Your task to perform on an android device: set default search engine in the chrome app Image 0: 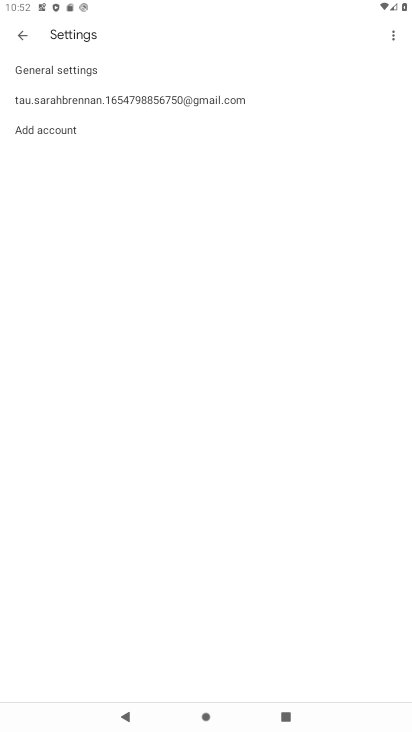
Step 0: press home button
Your task to perform on an android device: set default search engine in the chrome app Image 1: 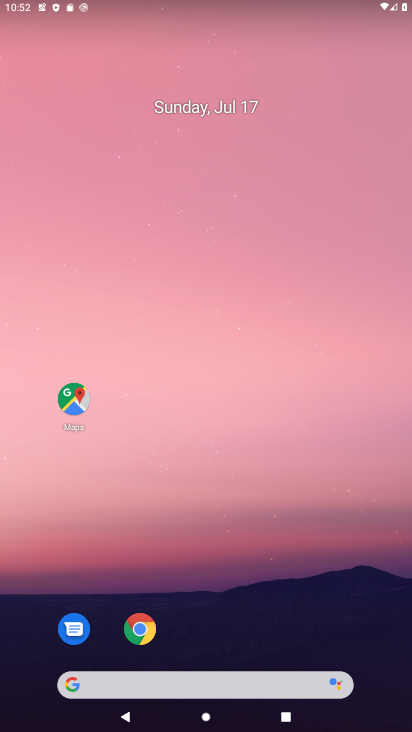
Step 1: click (146, 629)
Your task to perform on an android device: set default search engine in the chrome app Image 2: 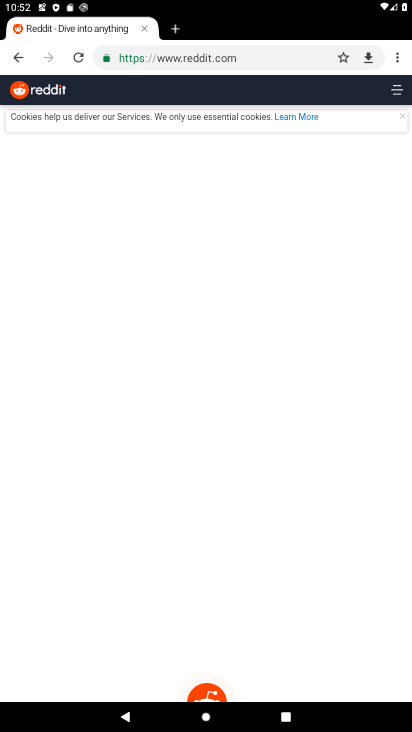
Step 2: click (400, 59)
Your task to perform on an android device: set default search engine in the chrome app Image 3: 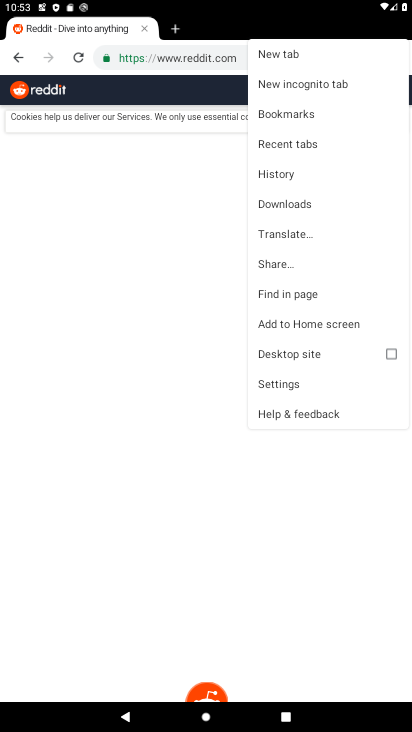
Step 3: click (283, 385)
Your task to perform on an android device: set default search engine in the chrome app Image 4: 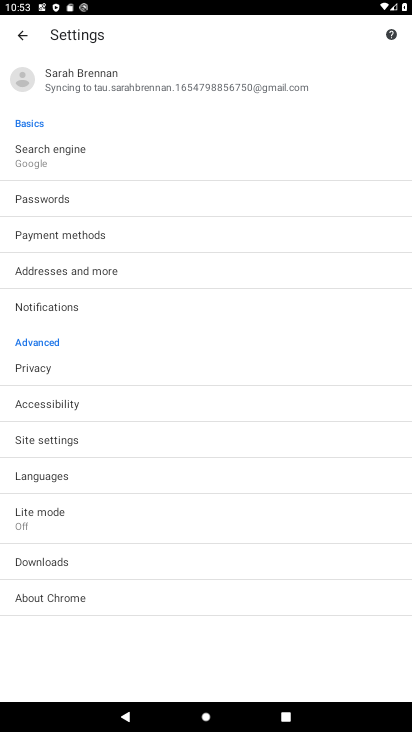
Step 4: click (57, 148)
Your task to perform on an android device: set default search engine in the chrome app Image 5: 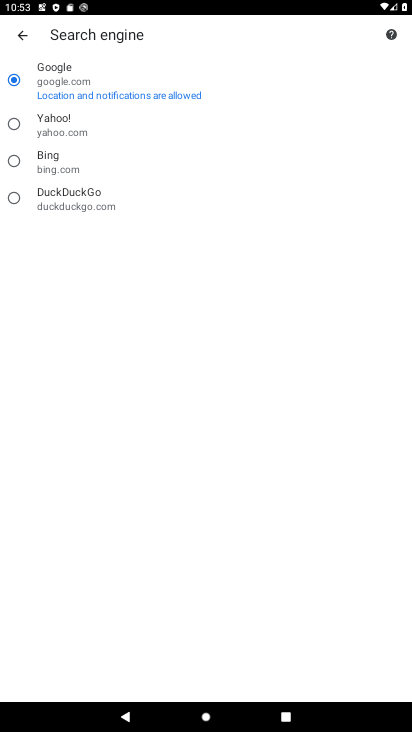
Step 5: click (88, 121)
Your task to perform on an android device: set default search engine in the chrome app Image 6: 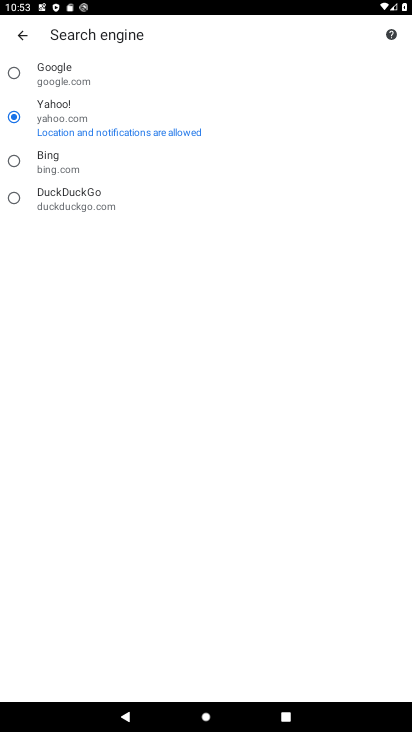
Step 6: task complete